Your task to perform on an android device: set an alarm Image 0: 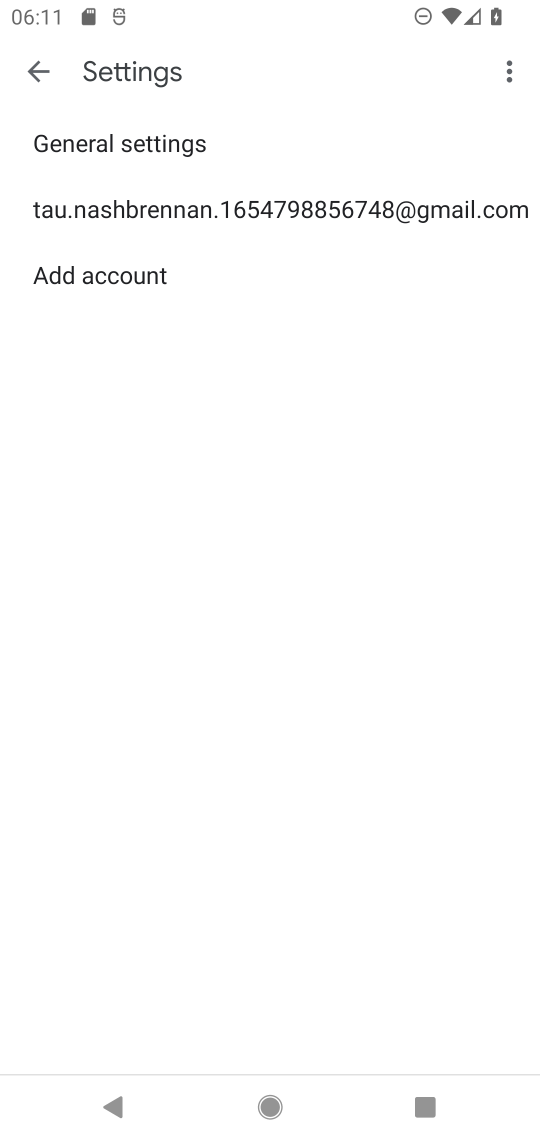
Step 0: press home button
Your task to perform on an android device: set an alarm Image 1: 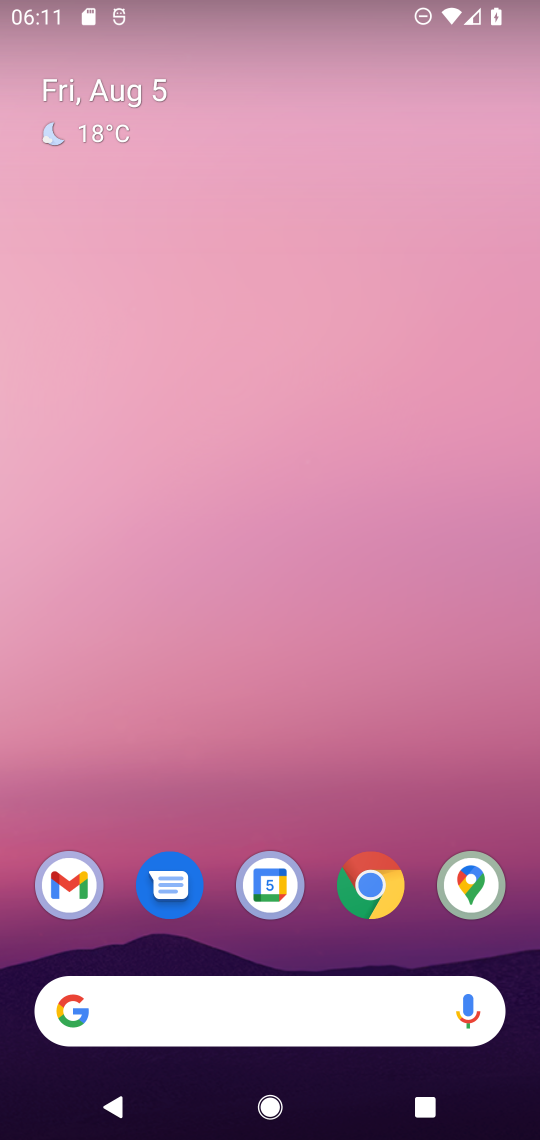
Step 1: drag from (321, 952) to (342, 225)
Your task to perform on an android device: set an alarm Image 2: 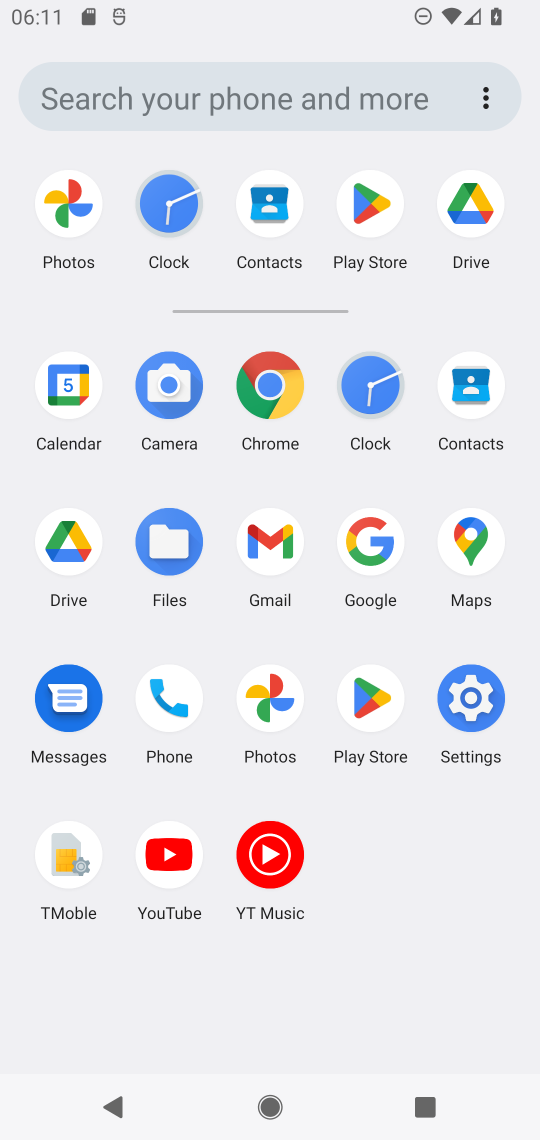
Step 2: click (374, 388)
Your task to perform on an android device: set an alarm Image 3: 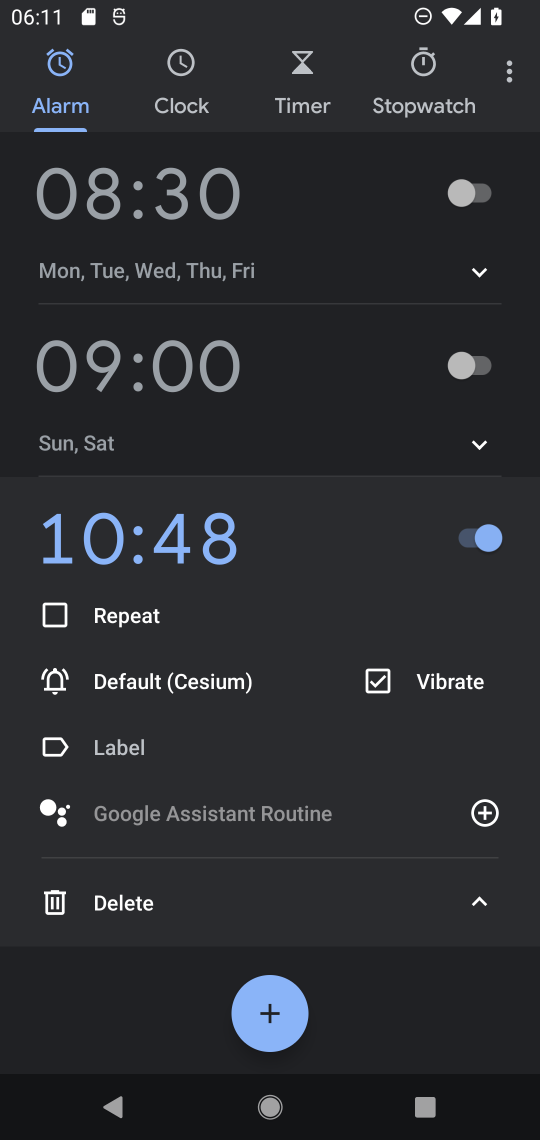
Step 3: click (269, 1008)
Your task to perform on an android device: set an alarm Image 4: 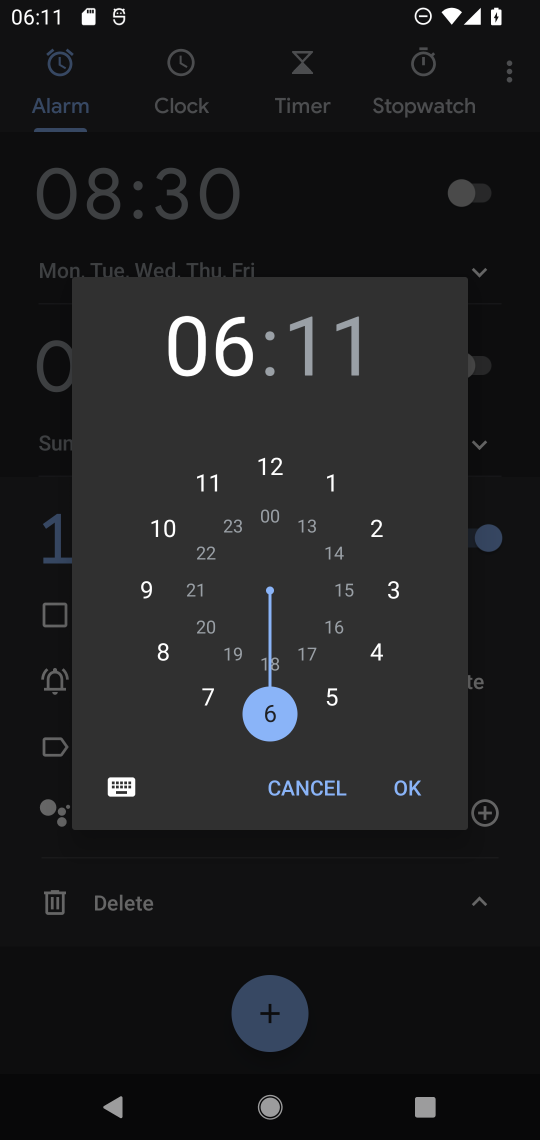
Step 4: click (160, 528)
Your task to perform on an android device: set an alarm Image 5: 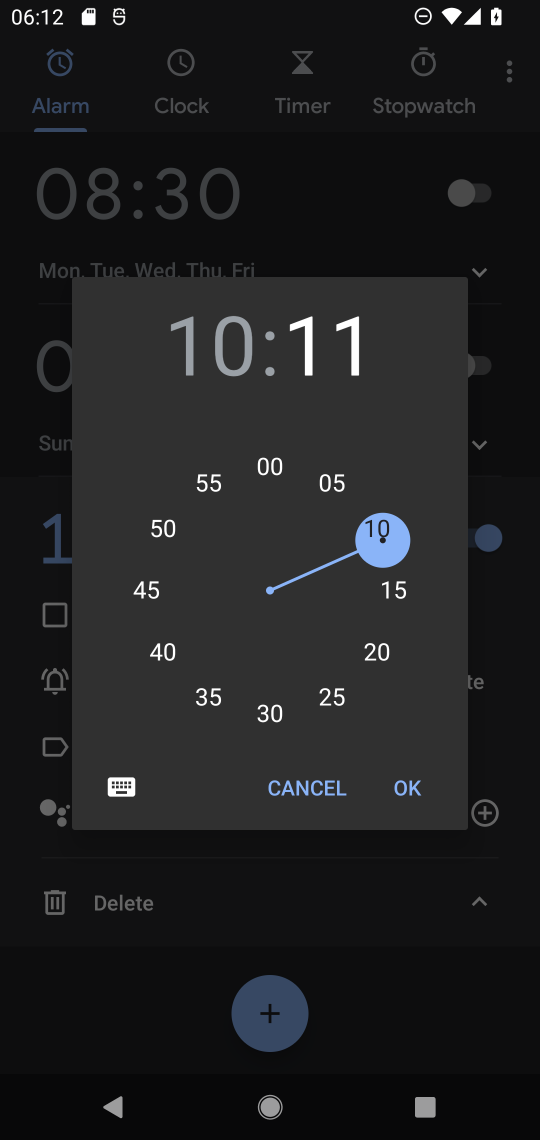
Step 5: click (412, 792)
Your task to perform on an android device: set an alarm Image 6: 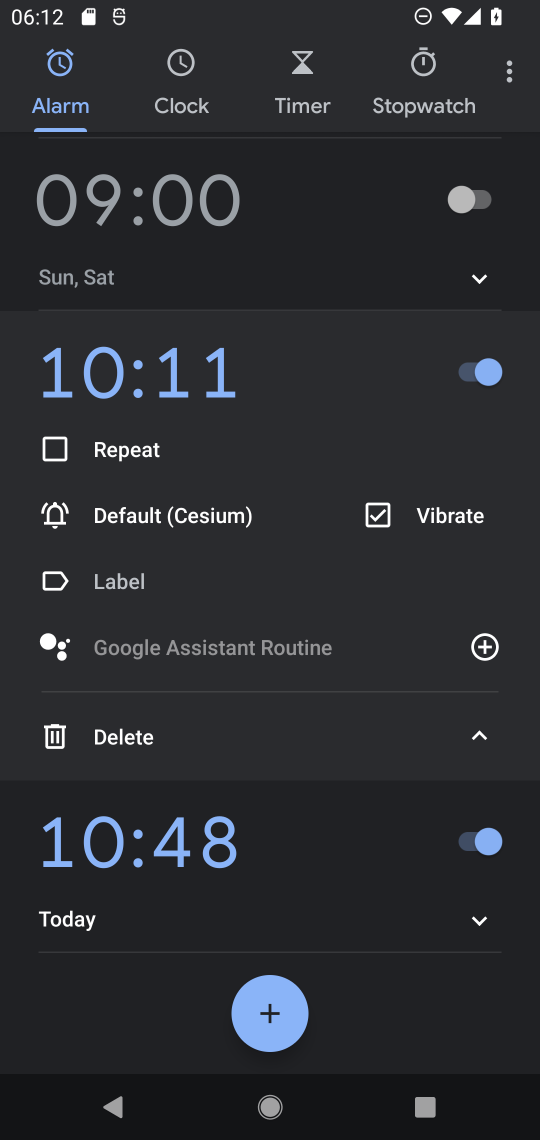
Step 6: task complete